Your task to perform on an android device: Check the weather Image 0: 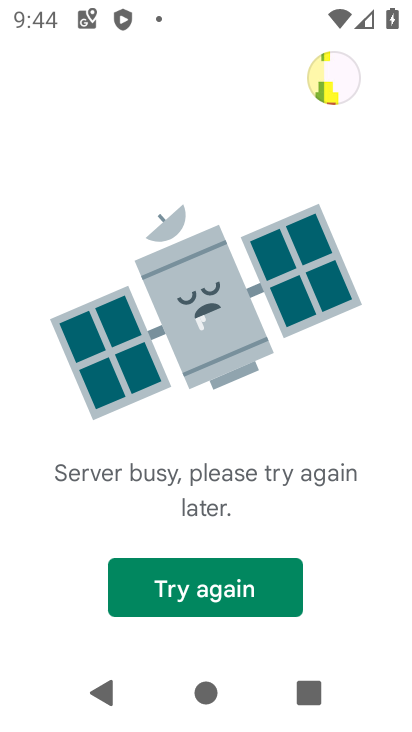
Step 0: press home button
Your task to perform on an android device: Check the weather Image 1: 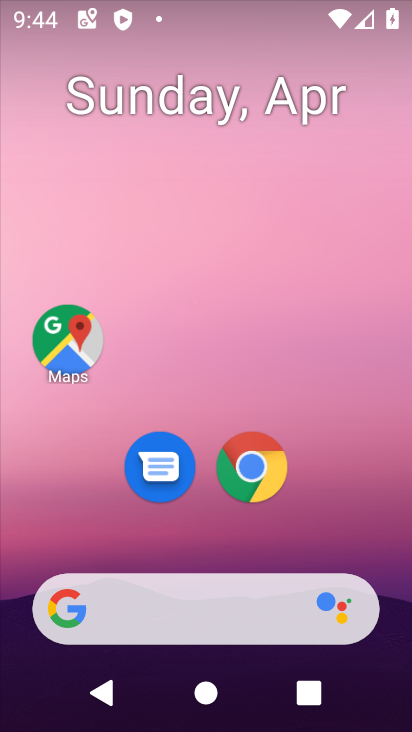
Step 1: click (209, 603)
Your task to perform on an android device: Check the weather Image 2: 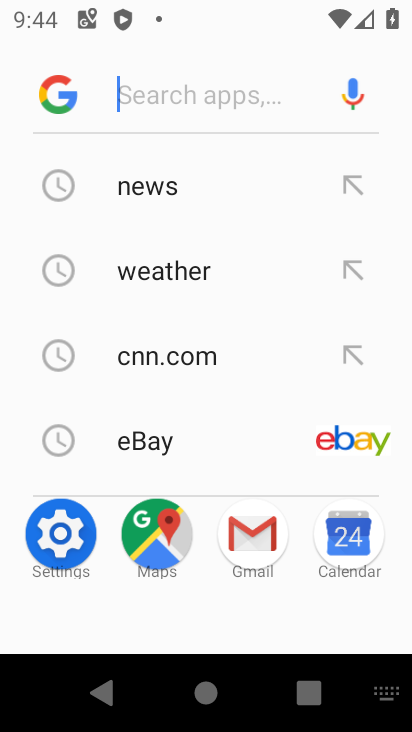
Step 2: click (181, 273)
Your task to perform on an android device: Check the weather Image 3: 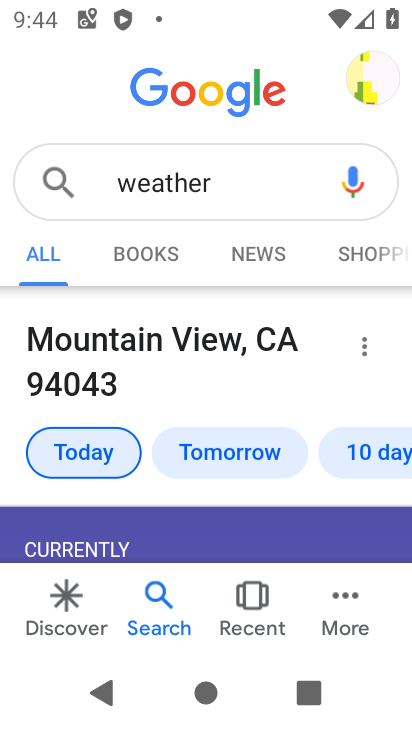
Step 3: task complete